Your task to perform on an android device: star an email in the gmail app Image 0: 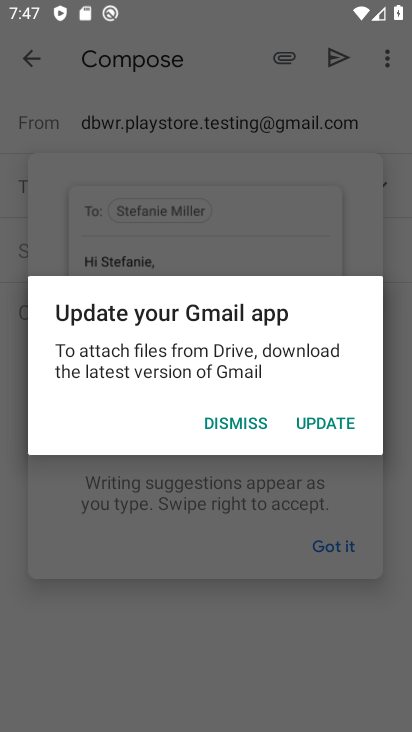
Step 0: press home button
Your task to perform on an android device: star an email in the gmail app Image 1: 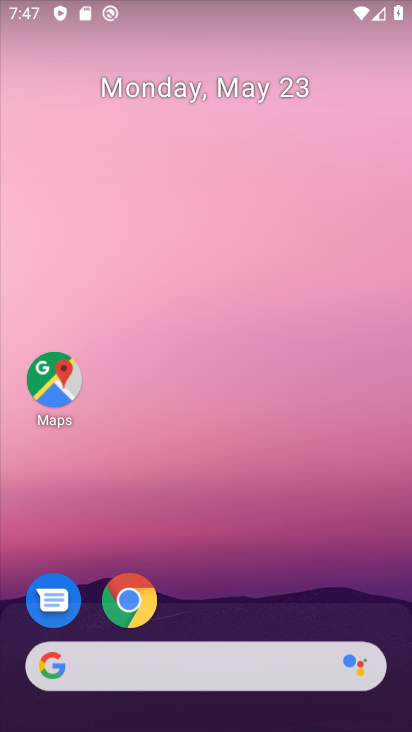
Step 1: drag from (44, 615) to (236, 155)
Your task to perform on an android device: star an email in the gmail app Image 2: 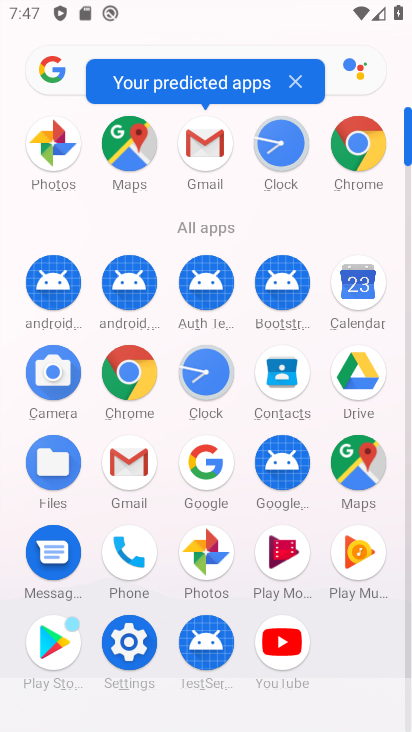
Step 2: click (205, 142)
Your task to perform on an android device: star an email in the gmail app Image 3: 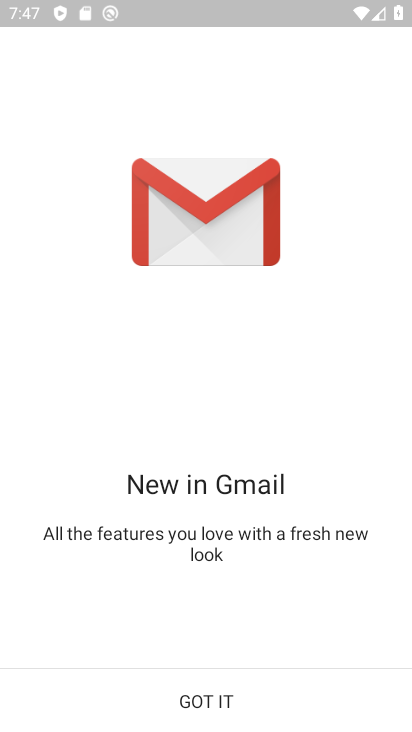
Step 3: click (198, 694)
Your task to perform on an android device: star an email in the gmail app Image 4: 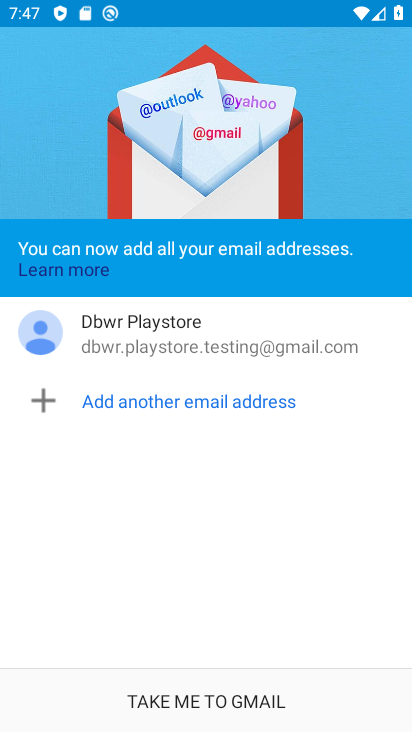
Step 4: click (184, 706)
Your task to perform on an android device: star an email in the gmail app Image 5: 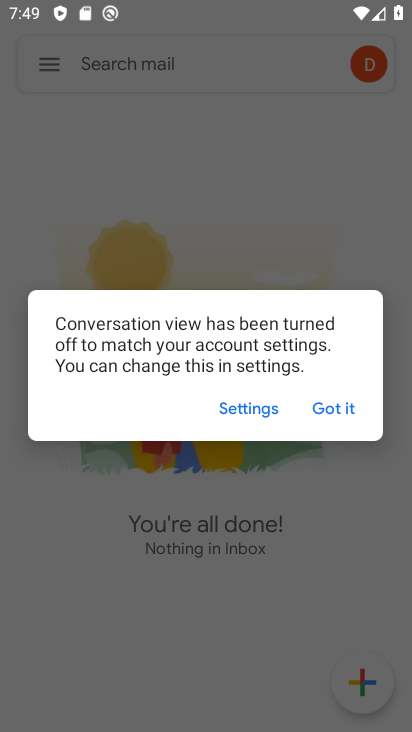
Step 5: press home button
Your task to perform on an android device: star an email in the gmail app Image 6: 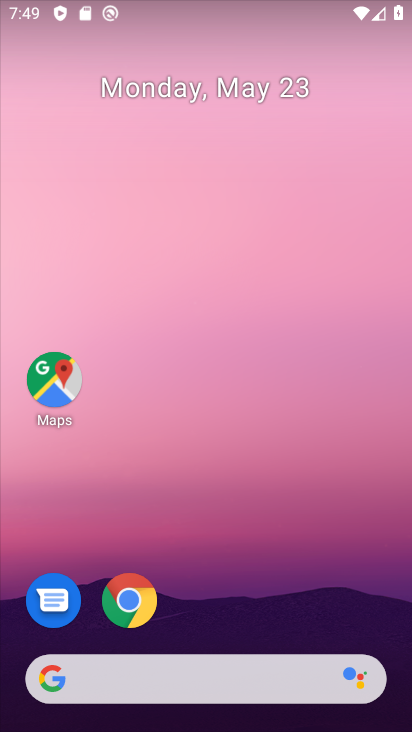
Step 6: drag from (100, 414) to (275, 98)
Your task to perform on an android device: star an email in the gmail app Image 7: 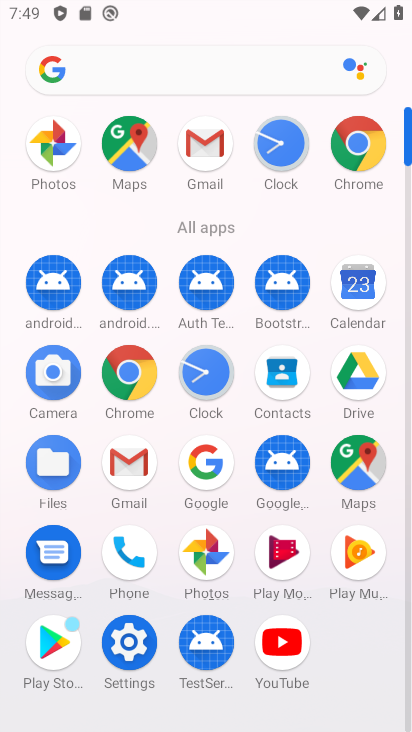
Step 7: click (192, 153)
Your task to perform on an android device: star an email in the gmail app Image 8: 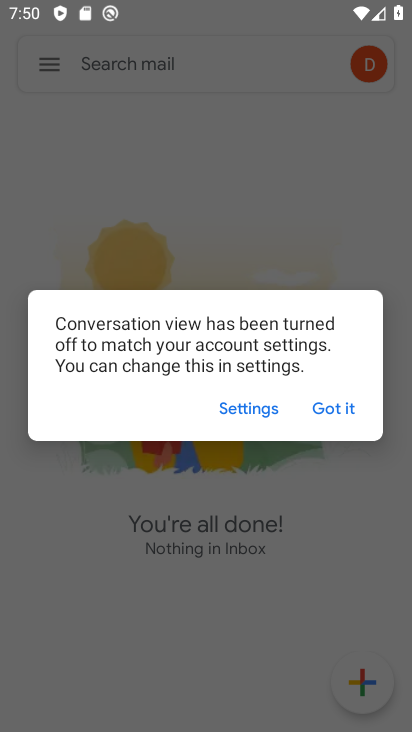
Step 8: click (327, 412)
Your task to perform on an android device: star an email in the gmail app Image 9: 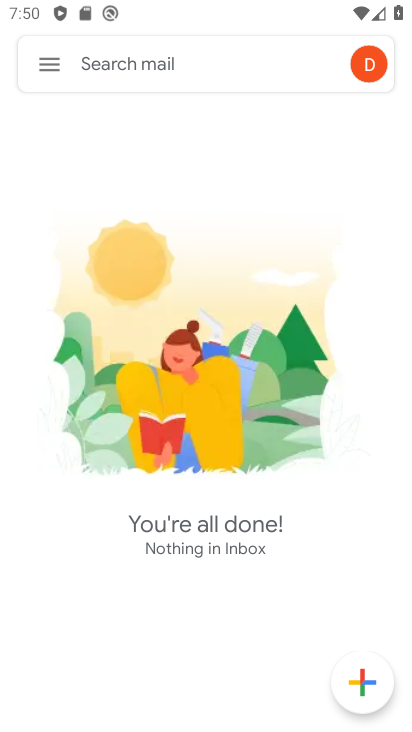
Step 9: click (44, 64)
Your task to perform on an android device: star an email in the gmail app Image 10: 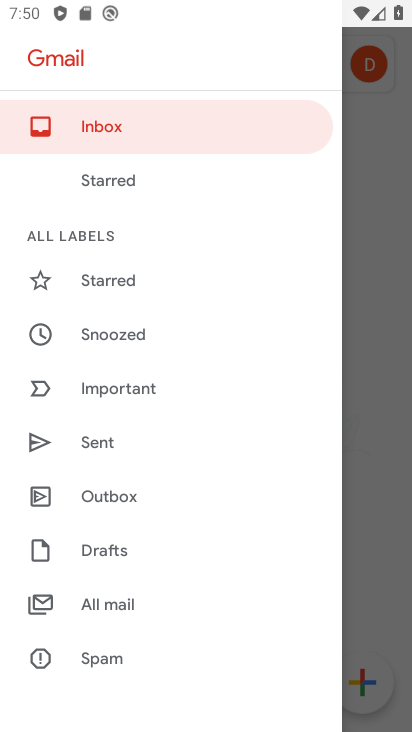
Step 10: drag from (76, 607) to (172, 250)
Your task to perform on an android device: star an email in the gmail app Image 11: 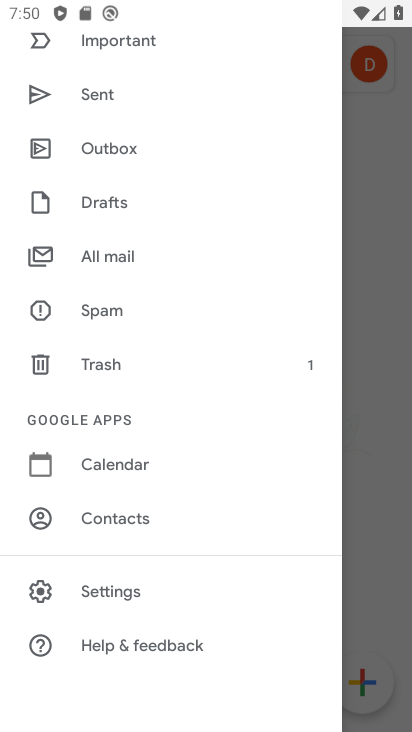
Step 11: click (107, 244)
Your task to perform on an android device: star an email in the gmail app Image 12: 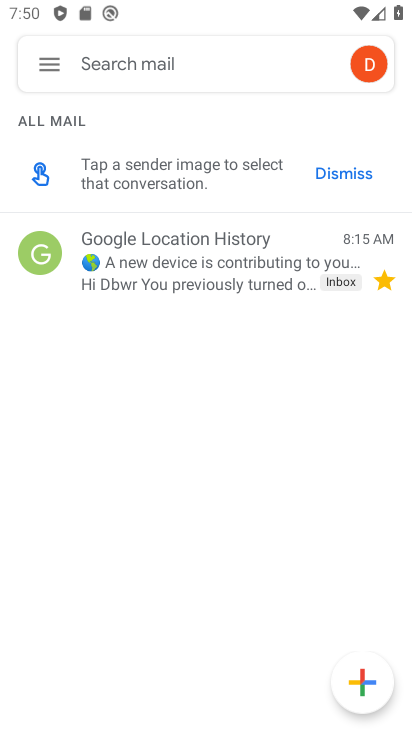
Step 12: task complete